Your task to perform on an android device: open chrome privacy settings Image 0: 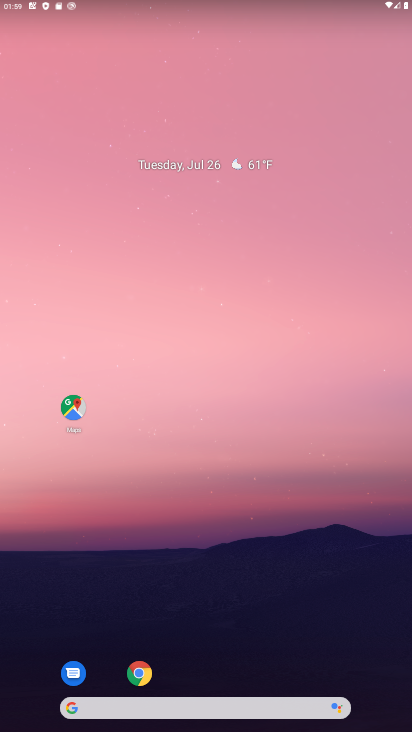
Step 0: click (135, 673)
Your task to perform on an android device: open chrome privacy settings Image 1: 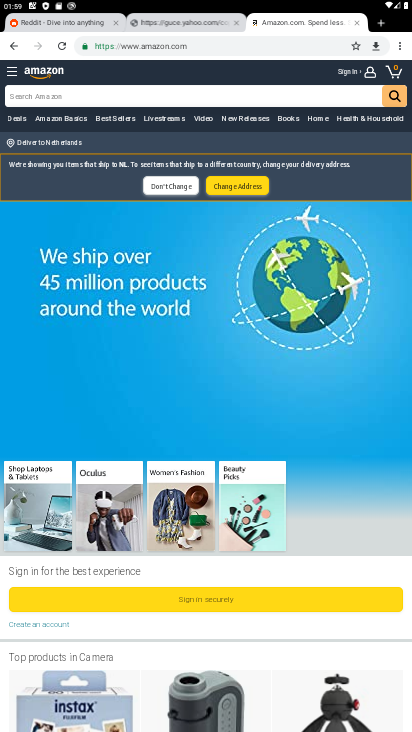
Step 1: click (400, 47)
Your task to perform on an android device: open chrome privacy settings Image 2: 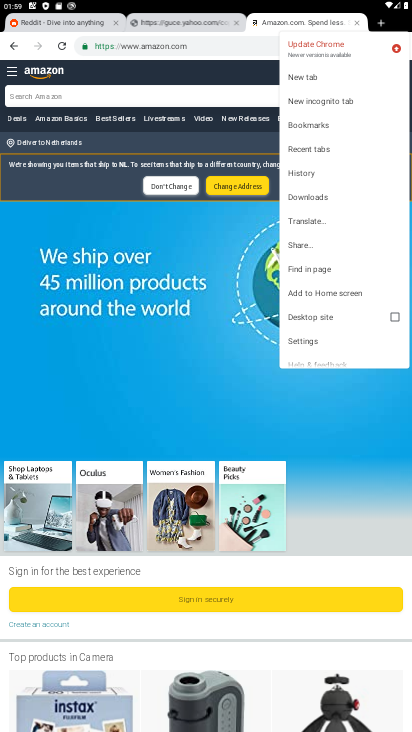
Step 2: click (303, 338)
Your task to perform on an android device: open chrome privacy settings Image 3: 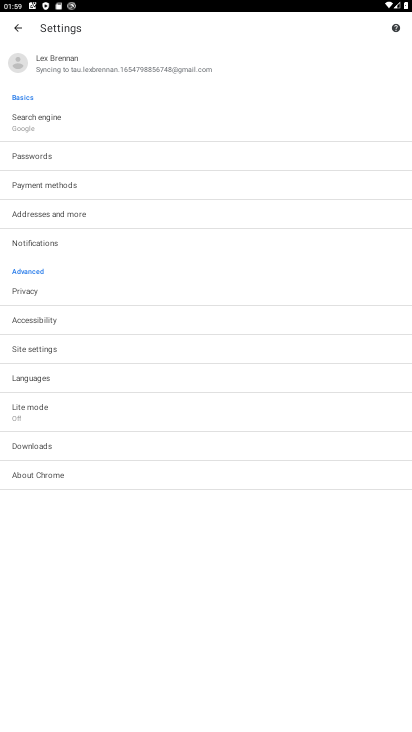
Step 3: click (22, 293)
Your task to perform on an android device: open chrome privacy settings Image 4: 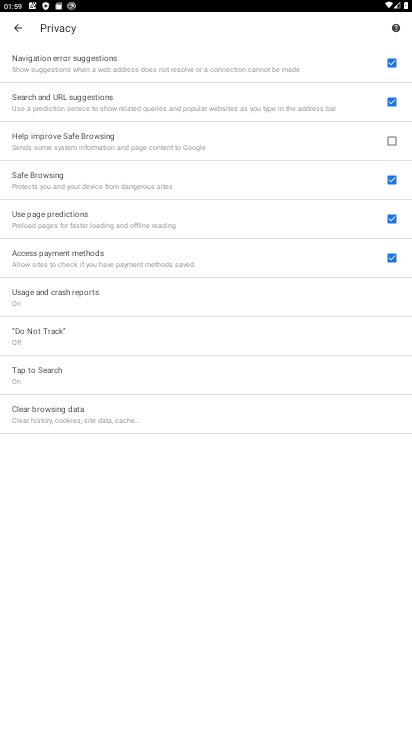
Step 4: task complete